Your task to perform on an android device: Open Wikipedia Image 0: 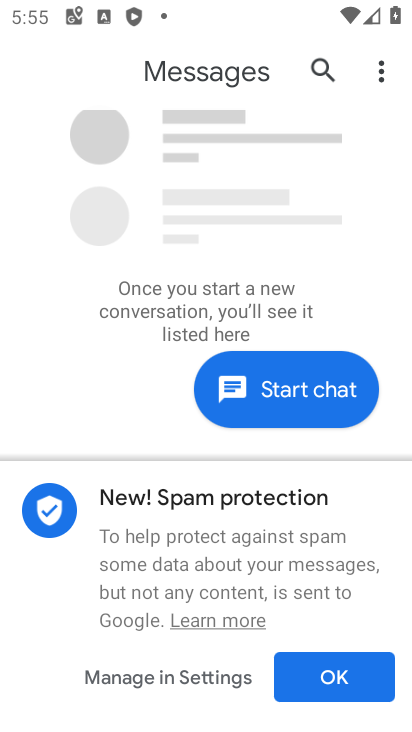
Step 0: press home button
Your task to perform on an android device: Open Wikipedia Image 1: 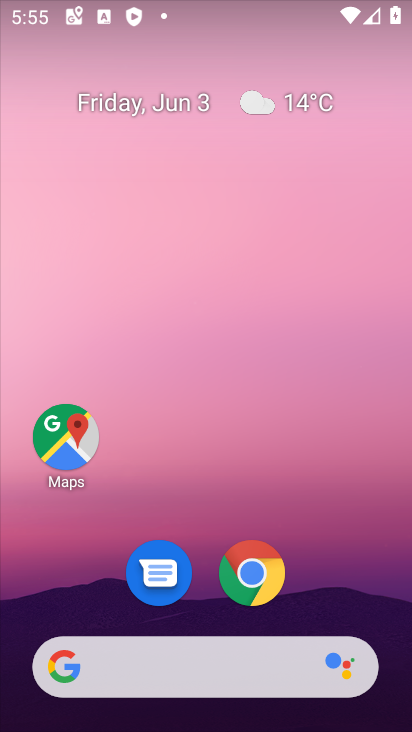
Step 1: drag from (334, 636) to (373, 4)
Your task to perform on an android device: Open Wikipedia Image 2: 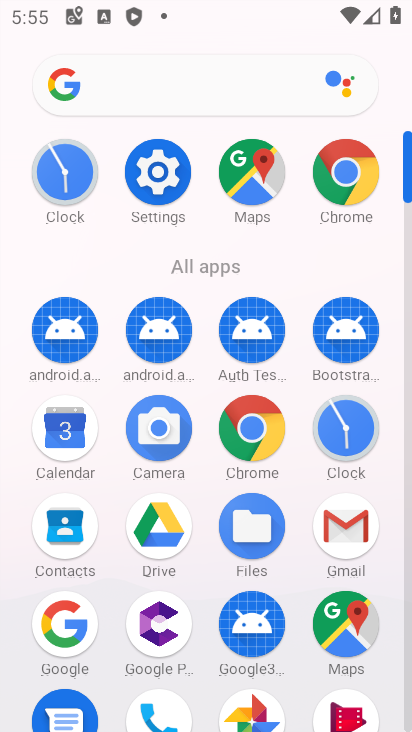
Step 2: click (231, 442)
Your task to perform on an android device: Open Wikipedia Image 3: 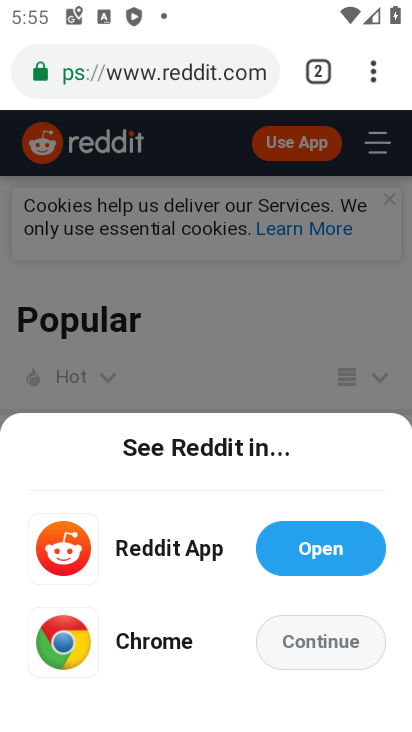
Step 3: drag from (373, 75) to (190, 143)
Your task to perform on an android device: Open Wikipedia Image 4: 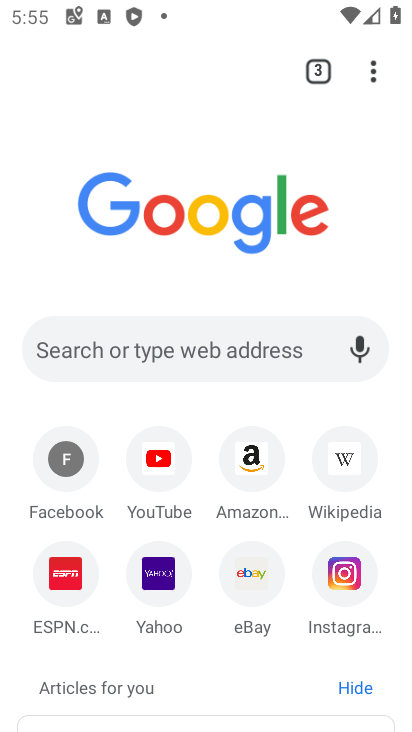
Step 4: click (327, 478)
Your task to perform on an android device: Open Wikipedia Image 5: 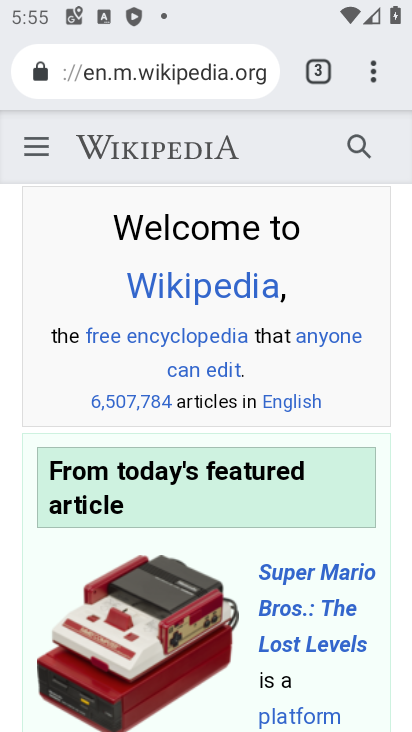
Step 5: task complete